Your task to perform on an android device: Go to Reddit.com Image 0: 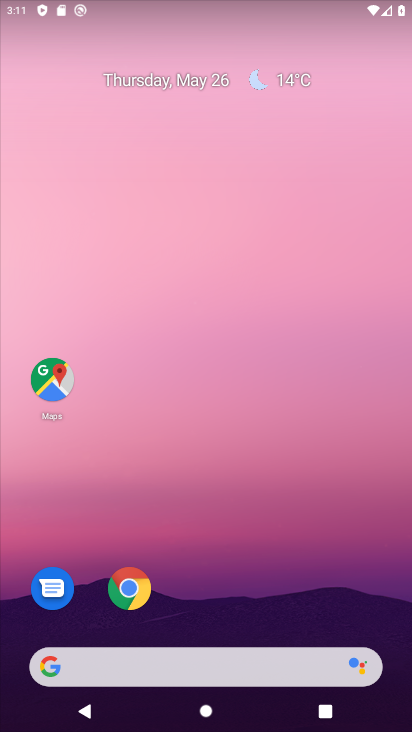
Step 0: click (187, 679)
Your task to perform on an android device: Go to Reddit.com Image 1: 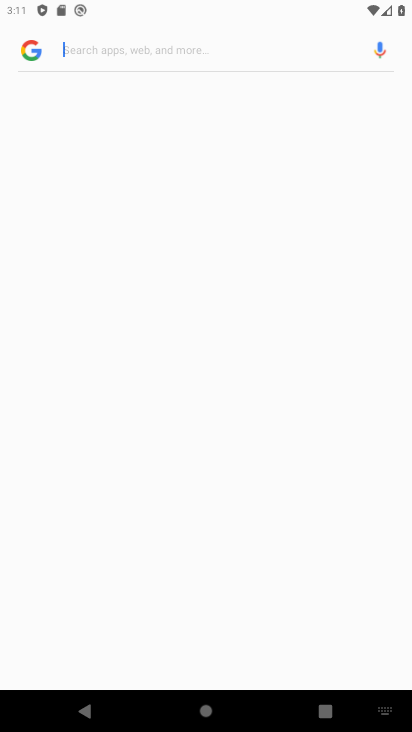
Step 1: type "reddit.com"
Your task to perform on an android device: Go to Reddit.com Image 2: 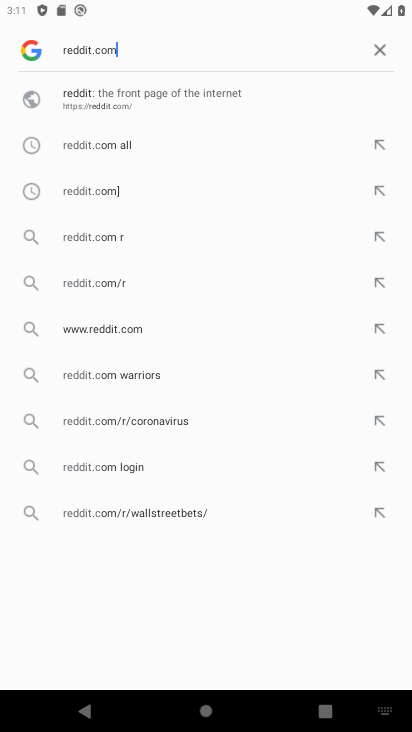
Step 2: click (154, 113)
Your task to perform on an android device: Go to Reddit.com Image 3: 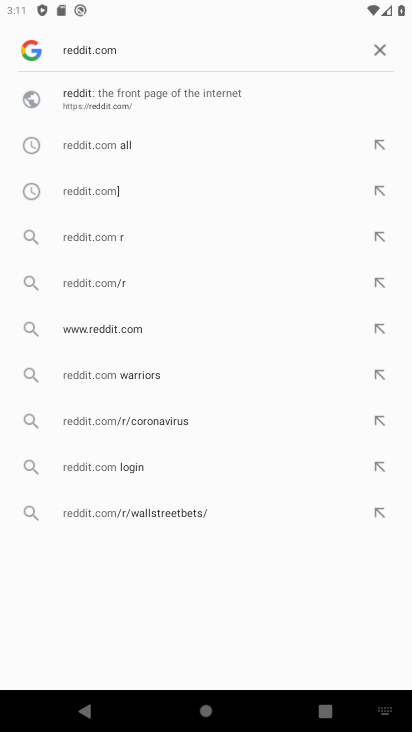
Step 3: click (154, 113)
Your task to perform on an android device: Go to Reddit.com Image 4: 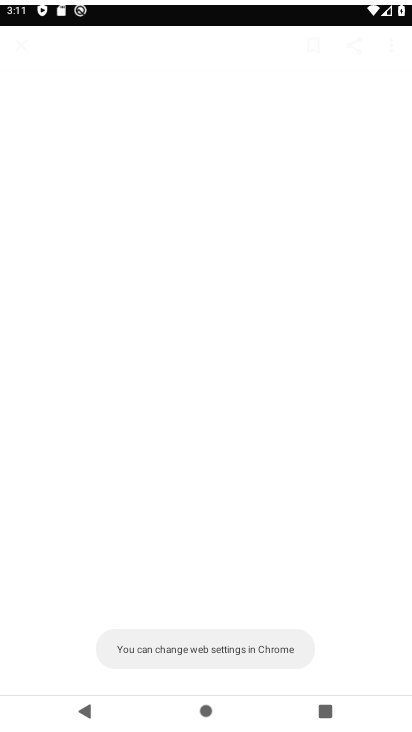
Step 4: task complete